Your task to perform on an android device: Set the phone to "Do not disturb". Image 0: 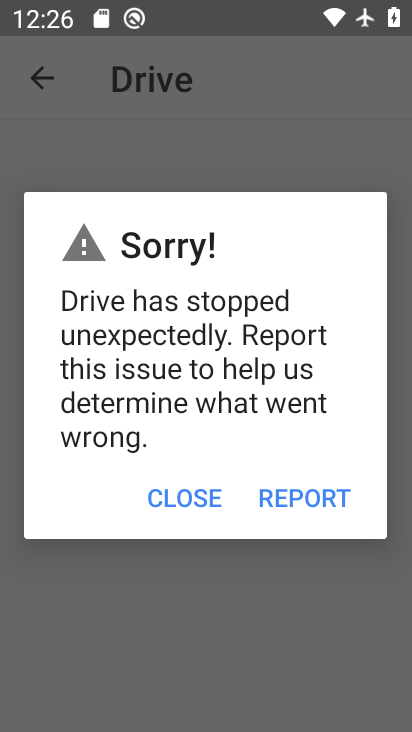
Step 0: press home button
Your task to perform on an android device: Set the phone to "Do not disturb". Image 1: 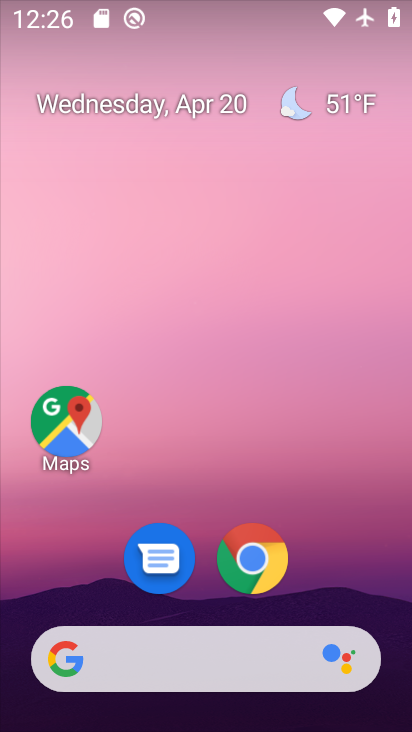
Step 1: drag from (374, 604) to (323, 150)
Your task to perform on an android device: Set the phone to "Do not disturb". Image 2: 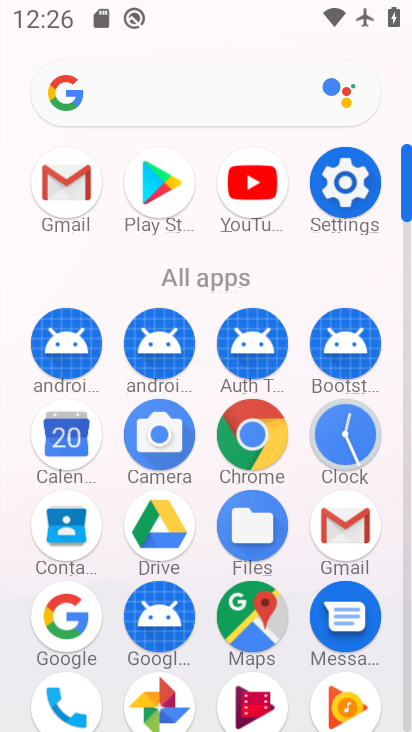
Step 2: click (408, 707)
Your task to perform on an android device: Set the phone to "Do not disturb". Image 3: 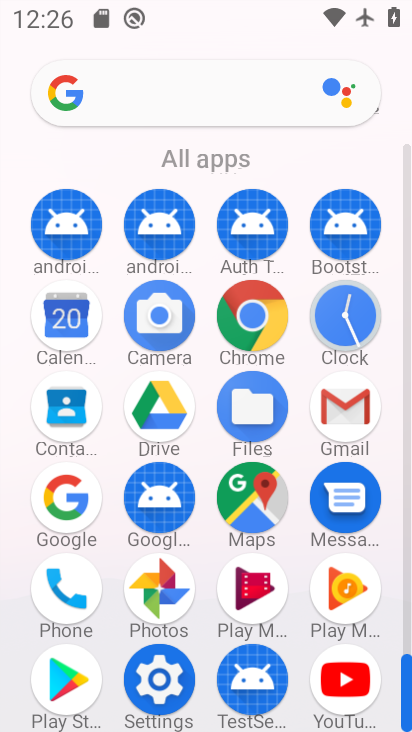
Step 3: click (153, 674)
Your task to perform on an android device: Set the phone to "Do not disturb". Image 4: 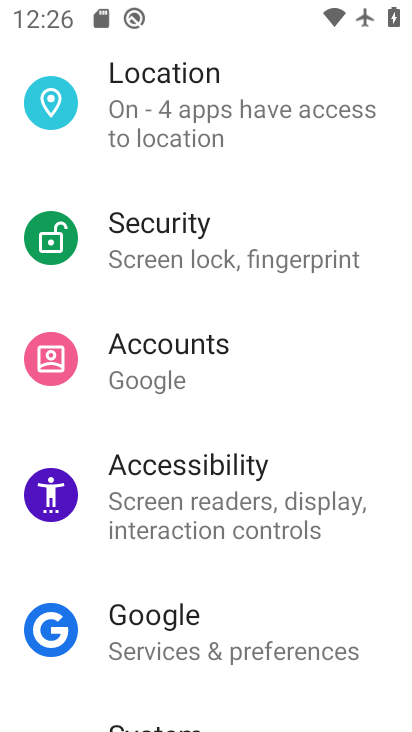
Step 4: drag from (375, 275) to (344, 481)
Your task to perform on an android device: Set the phone to "Do not disturb". Image 5: 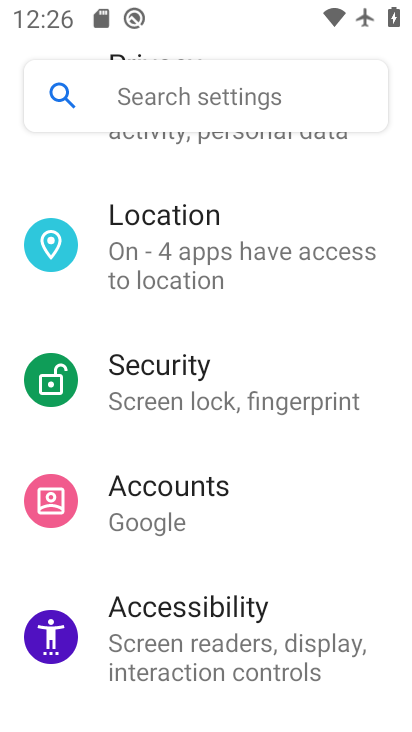
Step 5: drag from (348, 308) to (306, 533)
Your task to perform on an android device: Set the phone to "Do not disturb". Image 6: 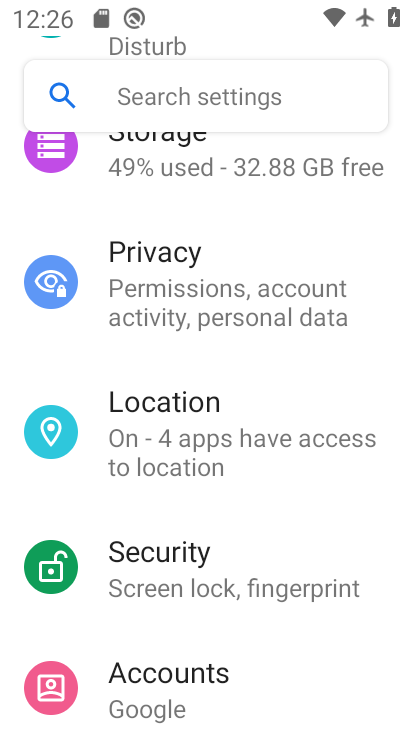
Step 6: drag from (354, 231) to (316, 448)
Your task to perform on an android device: Set the phone to "Do not disturb". Image 7: 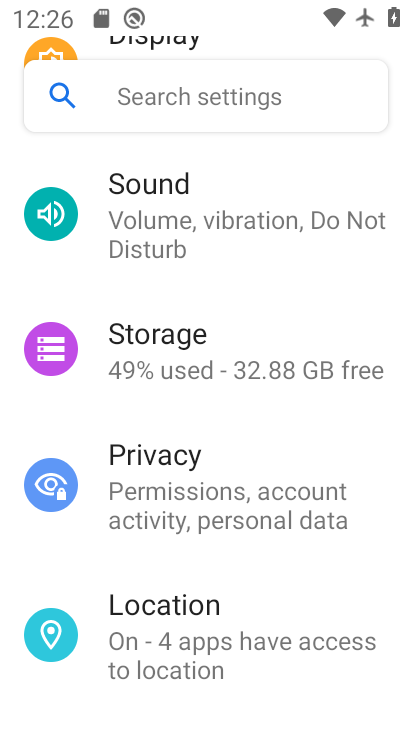
Step 7: drag from (323, 269) to (282, 528)
Your task to perform on an android device: Set the phone to "Do not disturb". Image 8: 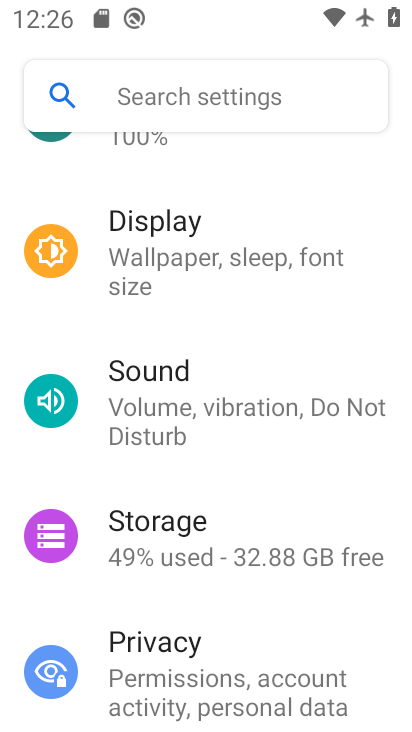
Step 8: click (157, 398)
Your task to perform on an android device: Set the phone to "Do not disturb". Image 9: 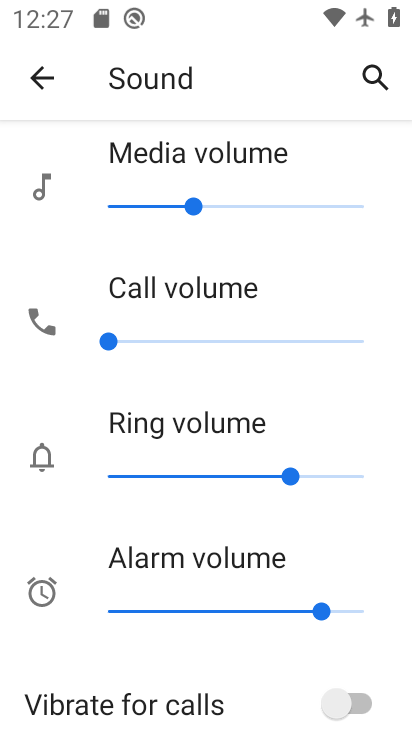
Step 9: drag from (259, 620) to (273, 287)
Your task to perform on an android device: Set the phone to "Do not disturb". Image 10: 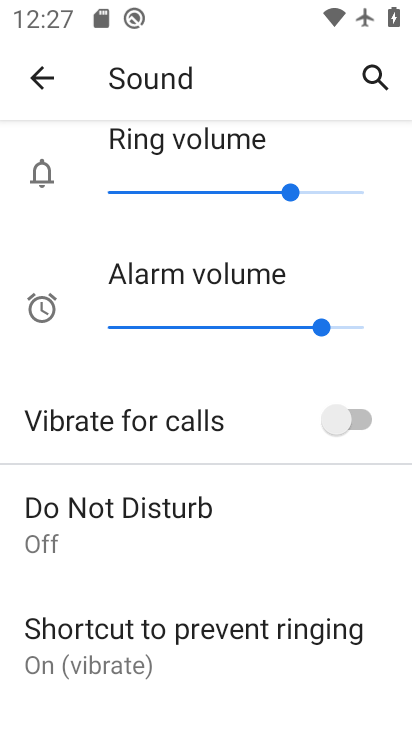
Step 10: click (66, 509)
Your task to perform on an android device: Set the phone to "Do not disturb". Image 11: 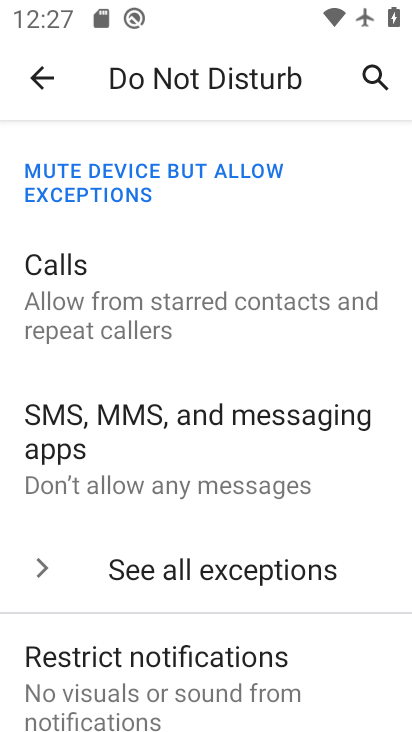
Step 11: drag from (255, 655) to (260, 312)
Your task to perform on an android device: Set the phone to "Do not disturb". Image 12: 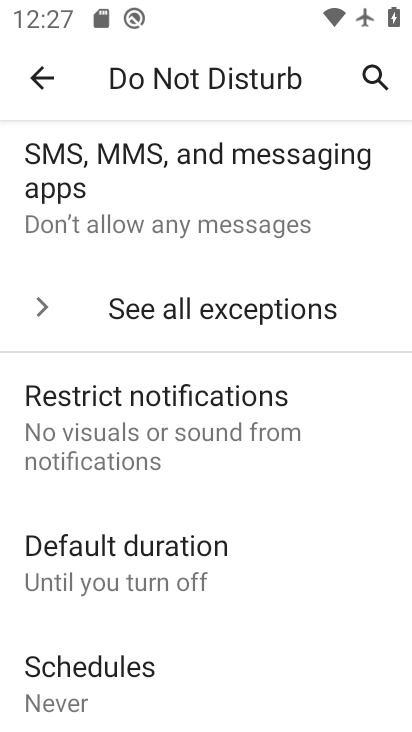
Step 12: drag from (262, 585) to (275, 201)
Your task to perform on an android device: Set the phone to "Do not disturb". Image 13: 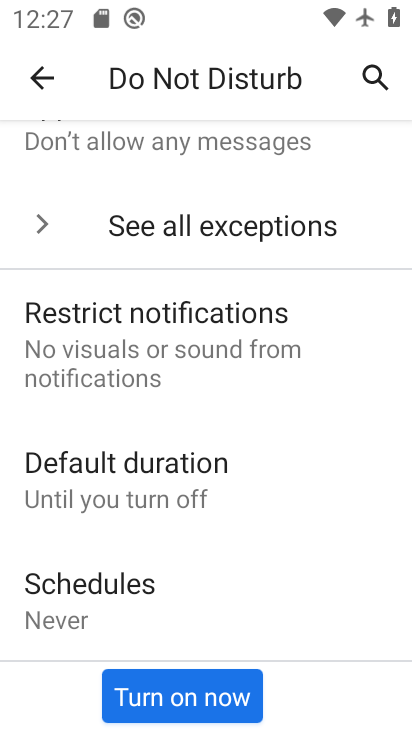
Step 13: click (167, 696)
Your task to perform on an android device: Set the phone to "Do not disturb". Image 14: 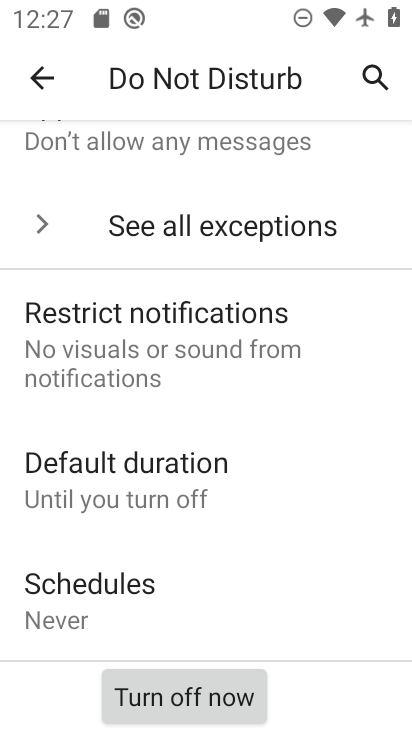
Step 14: task complete